Your task to perform on an android device: Open Google Chrome and open the bookmarks view Image 0: 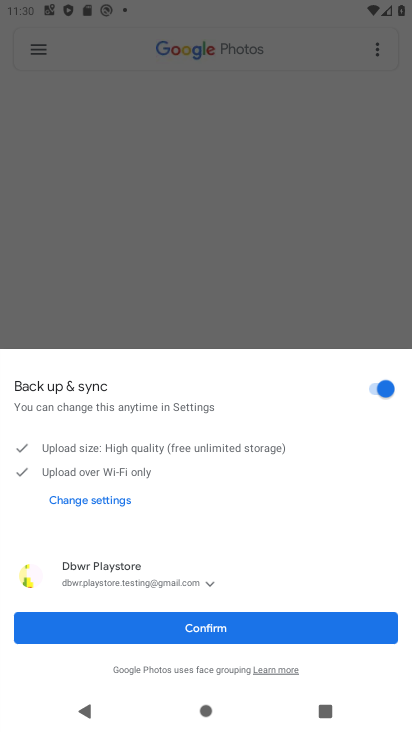
Step 0: press back button
Your task to perform on an android device: Open Google Chrome and open the bookmarks view Image 1: 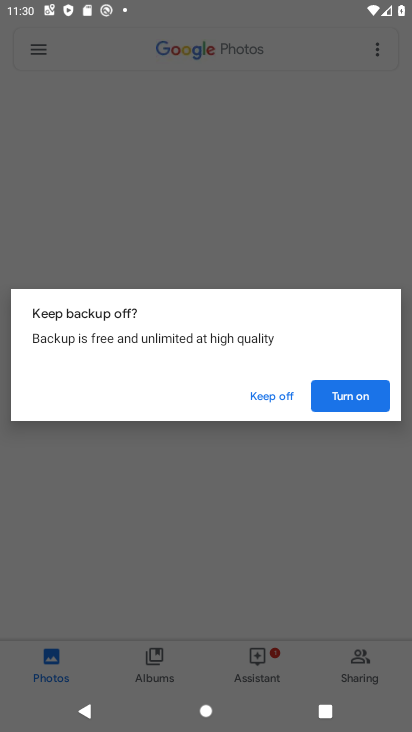
Step 1: press back button
Your task to perform on an android device: Open Google Chrome and open the bookmarks view Image 2: 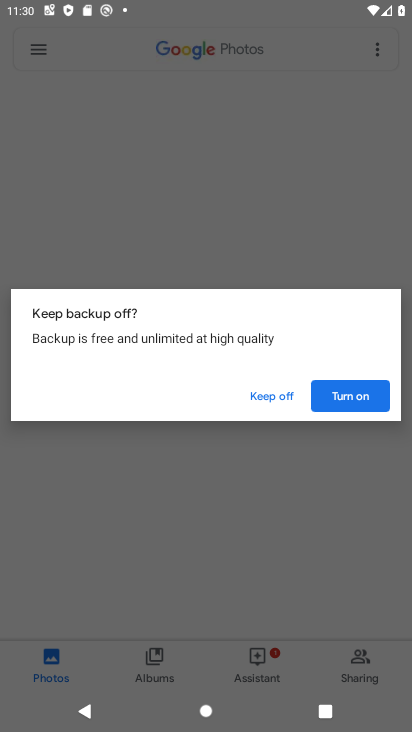
Step 2: press home button
Your task to perform on an android device: Open Google Chrome and open the bookmarks view Image 3: 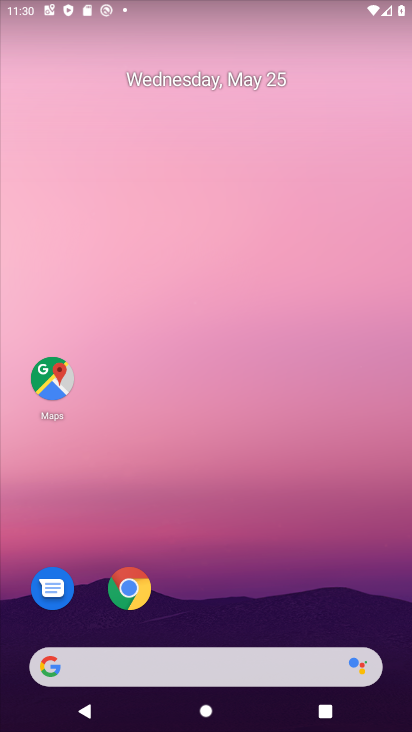
Step 3: drag from (230, 536) to (243, 20)
Your task to perform on an android device: Open Google Chrome and open the bookmarks view Image 4: 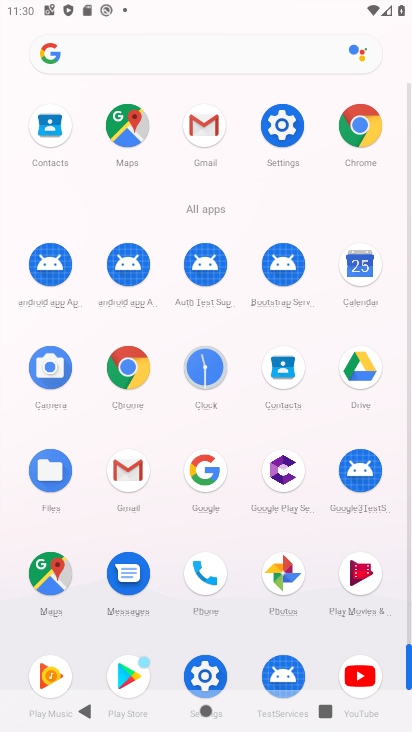
Step 4: drag from (11, 525) to (23, 240)
Your task to perform on an android device: Open Google Chrome and open the bookmarks view Image 5: 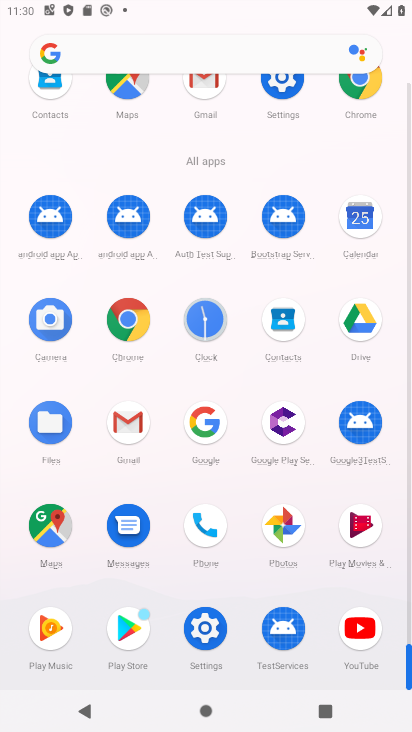
Step 5: click (131, 316)
Your task to perform on an android device: Open Google Chrome and open the bookmarks view Image 6: 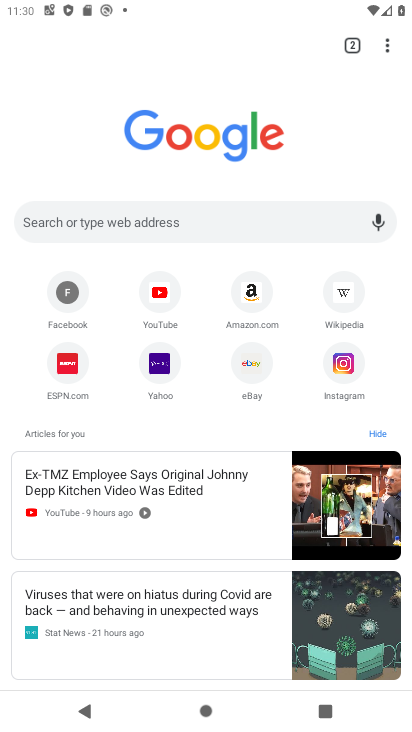
Step 6: task complete